Your task to perform on an android device: Open Google Chrome and open the bookmarks view Image 0: 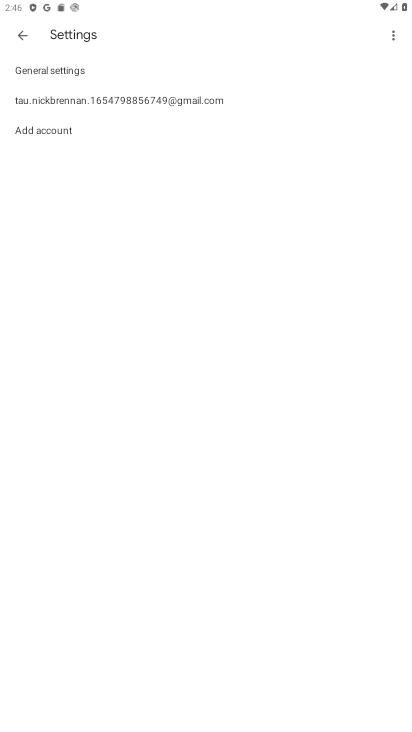
Step 0: press home button
Your task to perform on an android device: Open Google Chrome and open the bookmarks view Image 1: 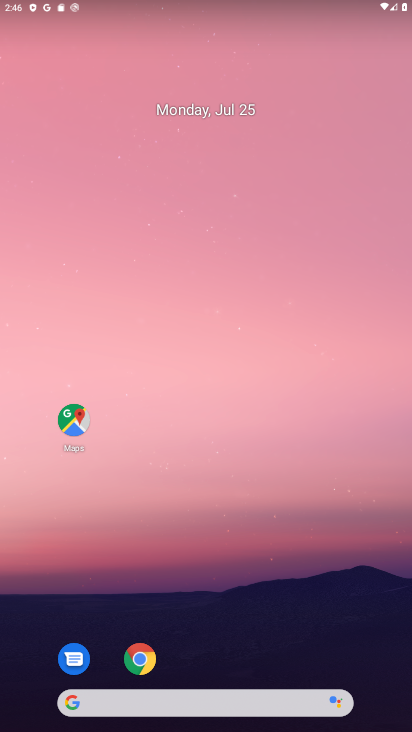
Step 1: drag from (206, 678) to (141, 67)
Your task to perform on an android device: Open Google Chrome and open the bookmarks view Image 2: 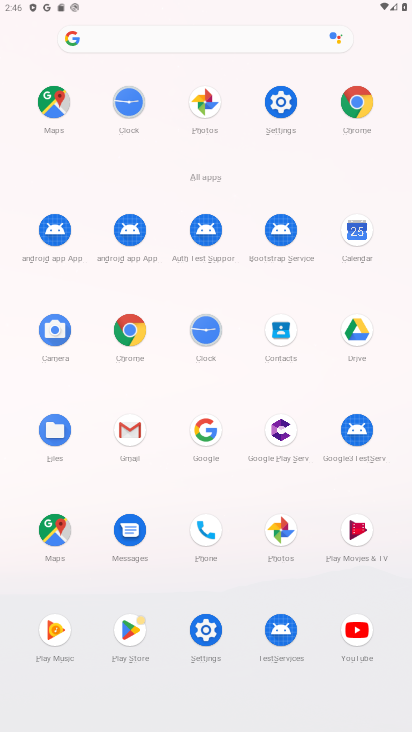
Step 2: click (140, 339)
Your task to perform on an android device: Open Google Chrome and open the bookmarks view Image 3: 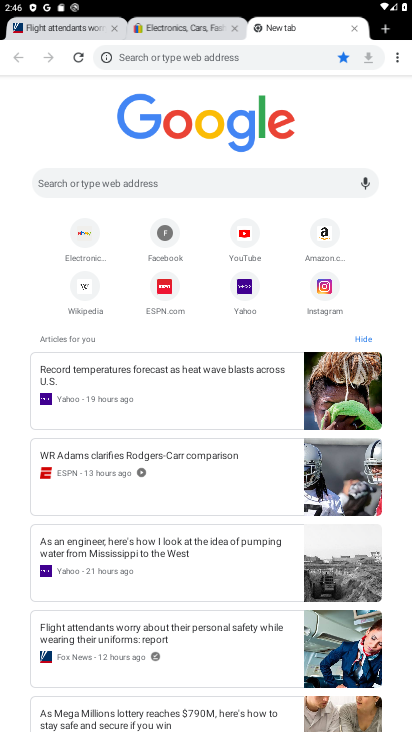
Step 3: task complete